Your task to perform on an android device: Search for seafood restaurants on Google Maps Image 0: 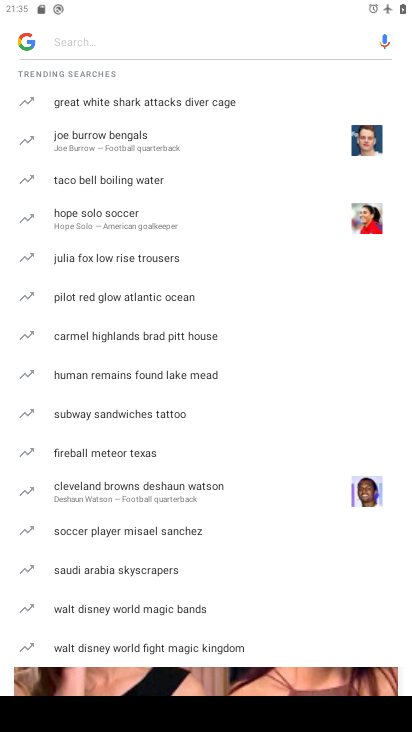
Step 0: press home button
Your task to perform on an android device: Search for seafood restaurants on Google Maps Image 1: 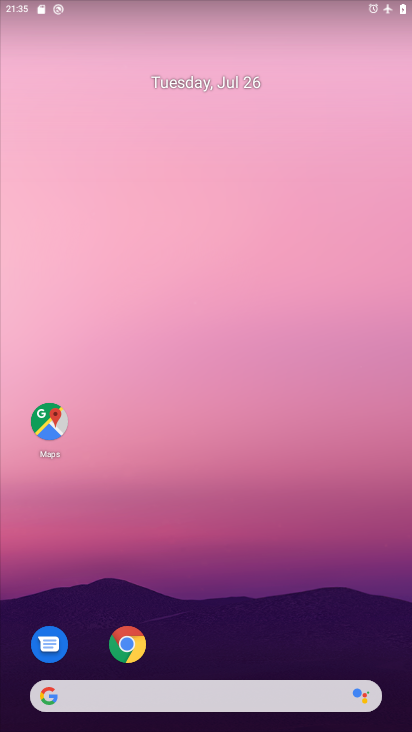
Step 1: click (60, 431)
Your task to perform on an android device: Search for seafood restaurants on Google Maps Image 2: 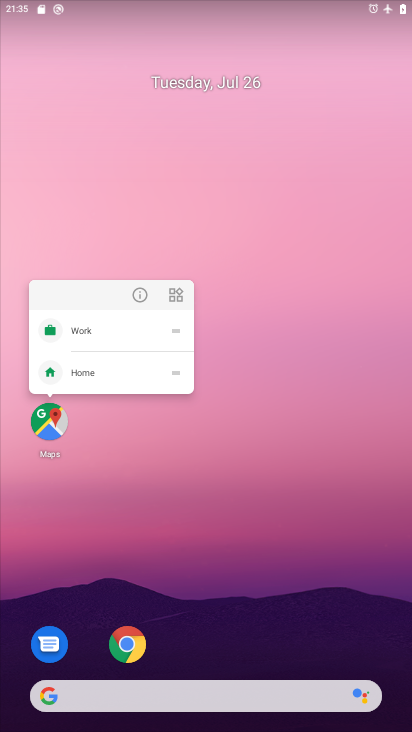
Step 2: click (60, 431)
Your task to perform on an android device: Search for seafood restaurants on Google Maps Image 3: 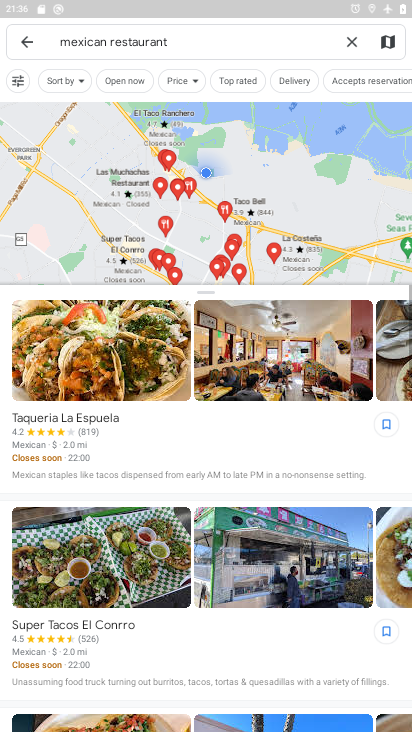
Step 3: click (342, 38)
Your task to perform on an android device: Search for seafood restaurants on Google Maps Image 4: 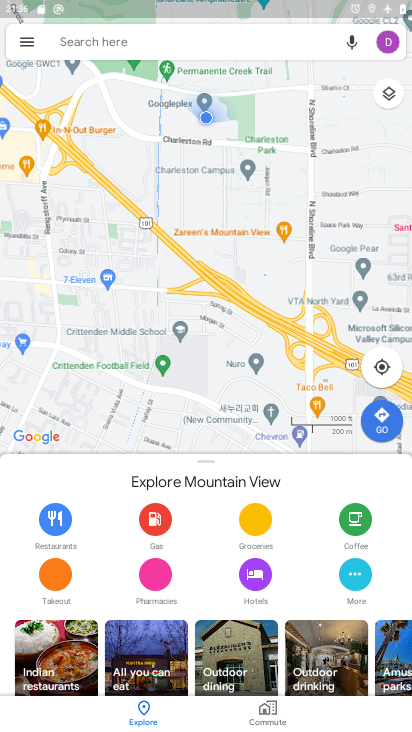
Step 4: click (210, 34)
Your task to perform on an android device: Search for seafood restaurants on Google Maps Image 5: 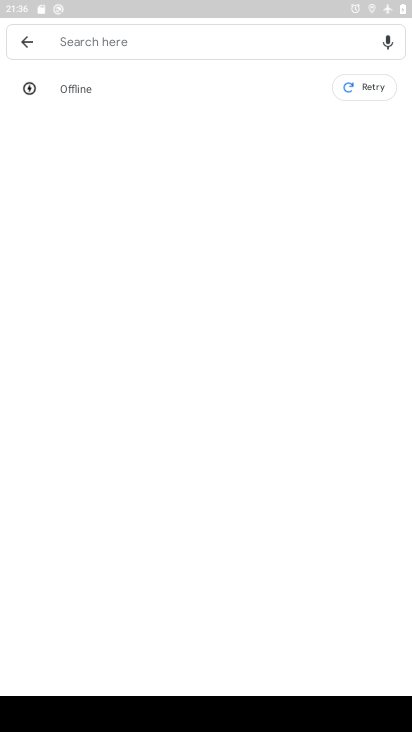
Step 5: click (161, 26)
Your task to perform on an android device: Search for seafood restaurants on Google Maps Image 6: 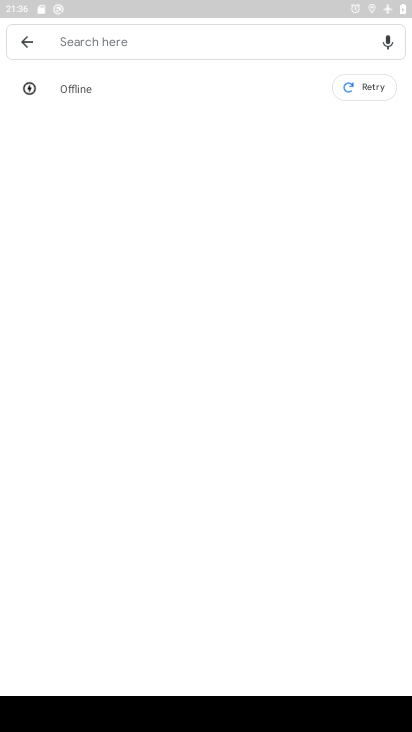
Step 6: type "seafood restaurants "
Your task to perform on an android device: Search for seafood restaurants on Google Maps Image 7: 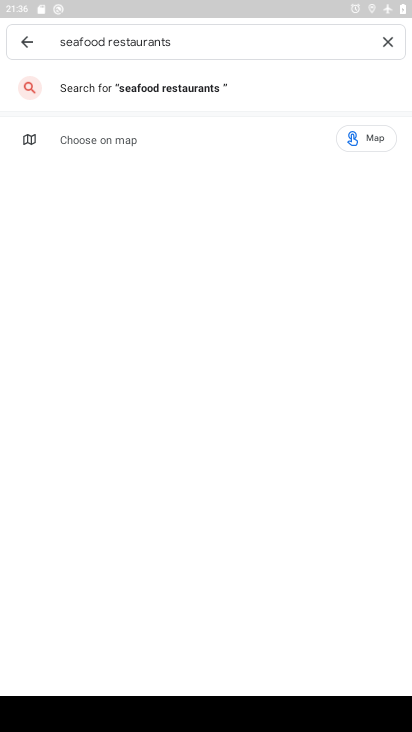
Step 7: click (159, 86)
Your task to perform on an android device: Search for seafood restaurants on Google Maps Image 8: 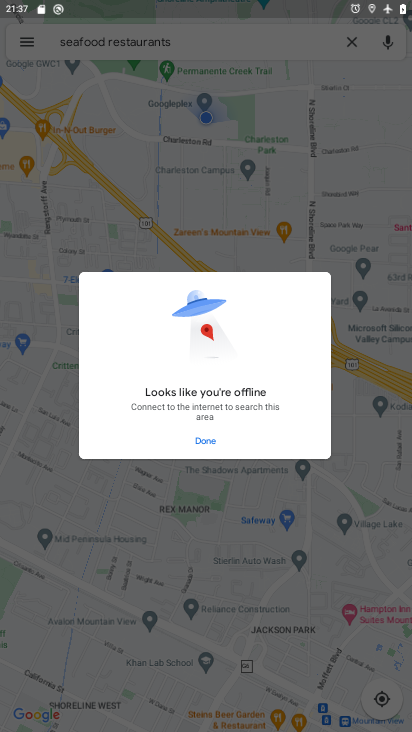
Step 8: task complete